Your task to perform on an android device: Go to Google Image 0: 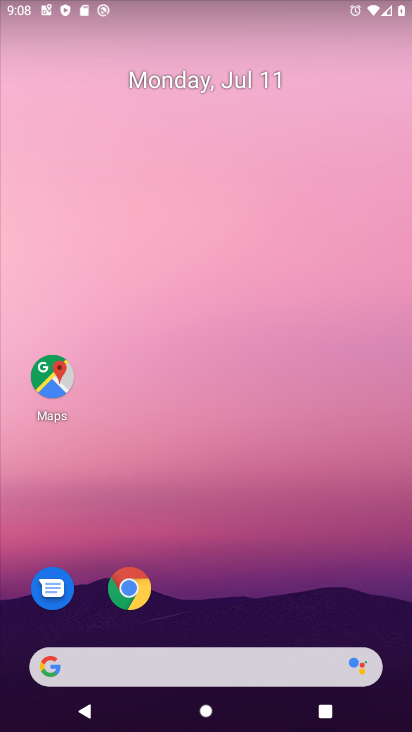
Step 0: drag from (208, 543) to (252, 4)
Your task to perform on an android device: Go to Google Image 1: 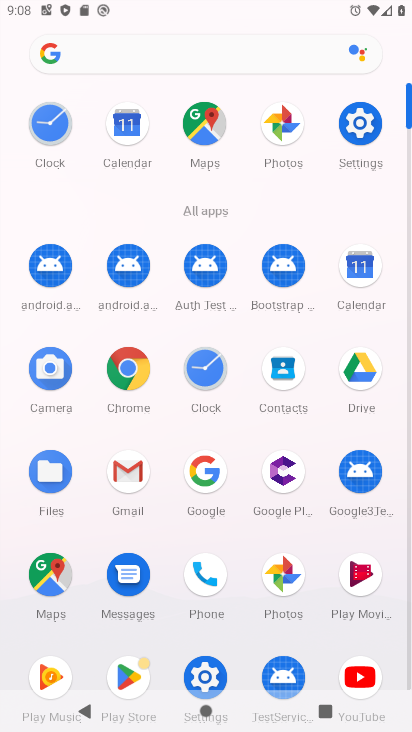
Step 1: click (202, 482)
Your task to perform on an android device: Go to Google Image 2: 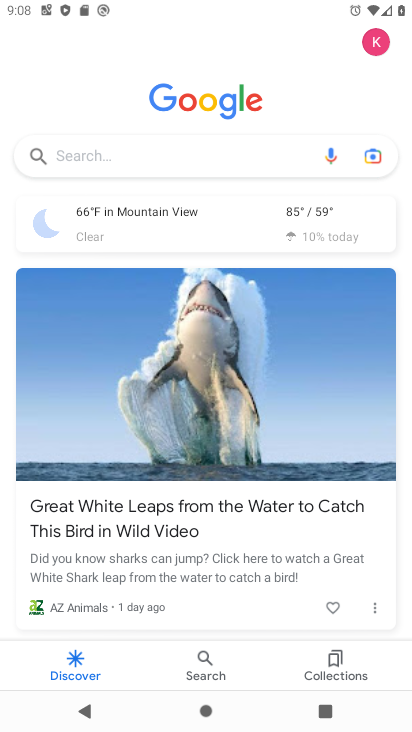
Step 2: task complete